Your task to perform on an android device: Look up the best rated drill on Lowes. Image 0: 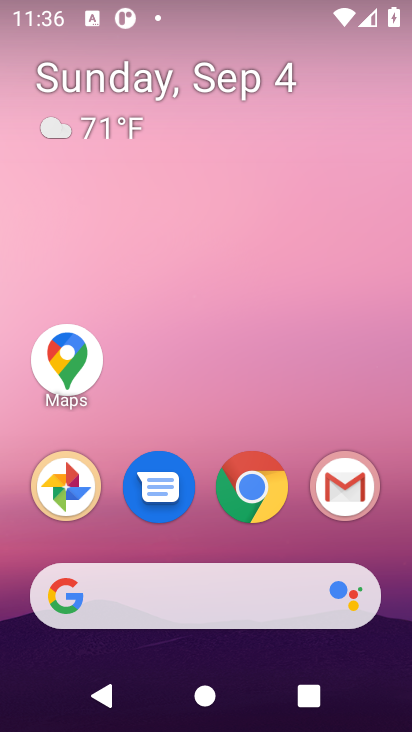
Step 0: click (194, 615)
Your task to perform on an android device: Look up the best rated drill on Lowes. Image 1: 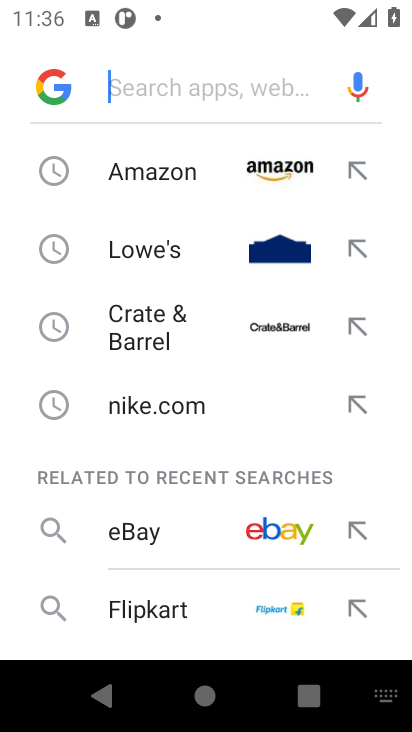
Step 1: click (177, 238)
Your task to perform on an android device: Look up the best rated drill on Lowes. Image 2: 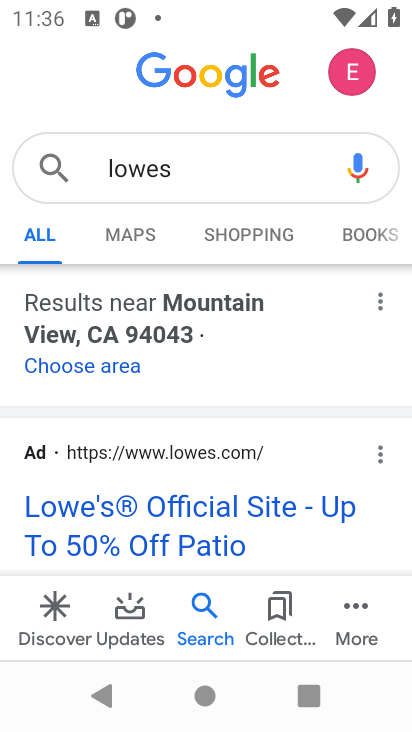
Step 2: click (245, 510)
Your task to perform on an android device: Look up the best rated drill on Lowes. Image 3: 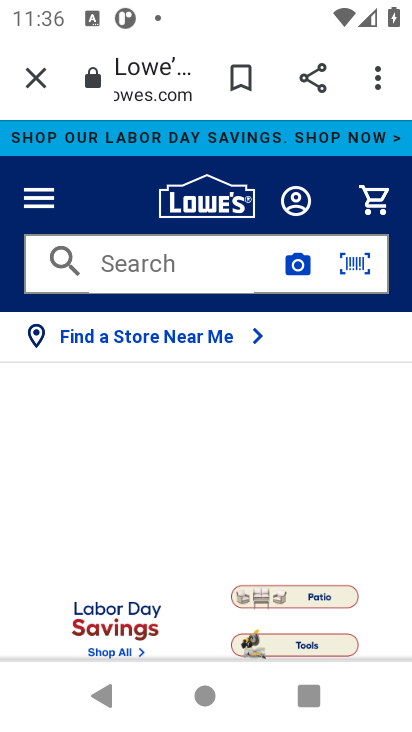
Step 3: click (221, 262)
Your task to perform on an android device: Look up the best rated drill on Lowes. Image 4: 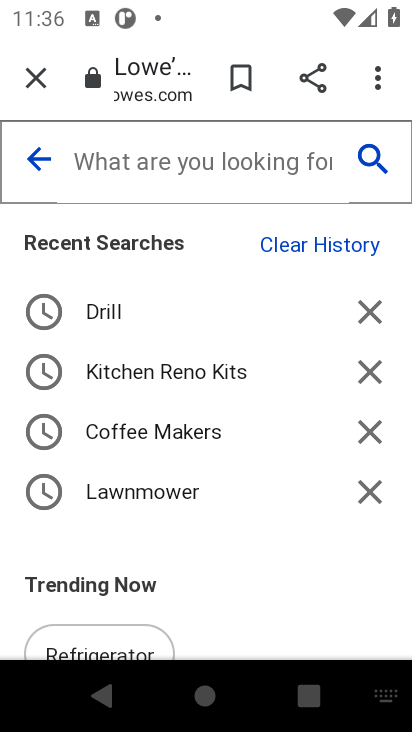
Step 4: click (150, 308)
Your task to perform on an android device: Look up the best rated drill on Lowes. Image 5: 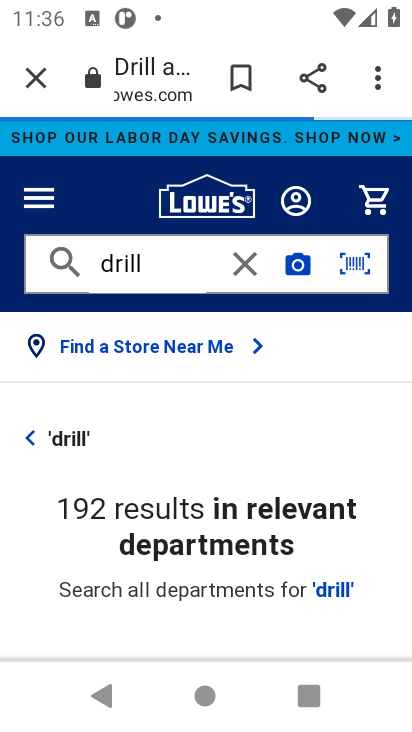
Step 5: task complete